Your task to perform on an android device: delete location history Image 0: 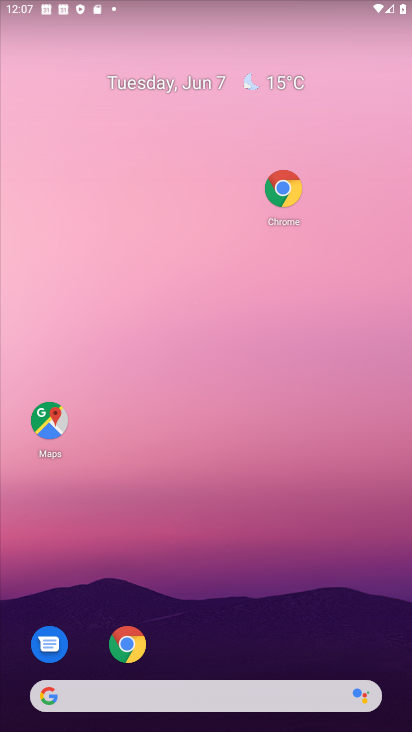
Step 0: drag from (275, 529) to (339, 0)
Your task to perform on an android device: delete location history Image 1: 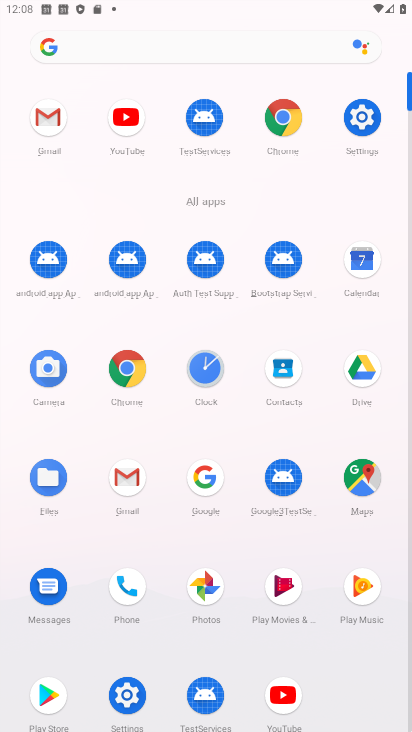
Step 1: click (363, 475)
Your task to perform on an android device: delete location history Image 2: 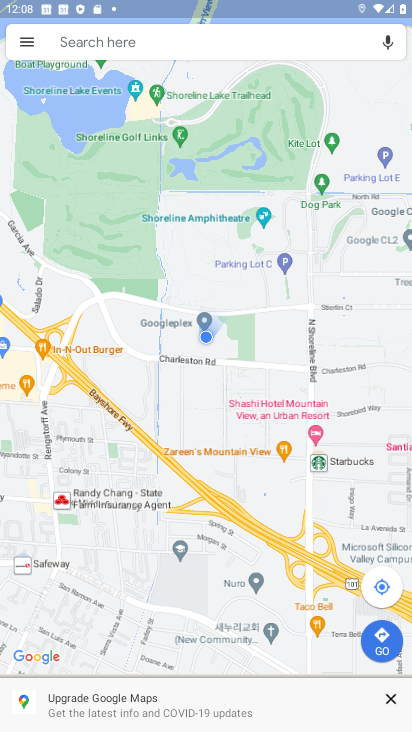
Step 2: click (28, 41)
Your task to perform on an android device: delete location history Image 3: 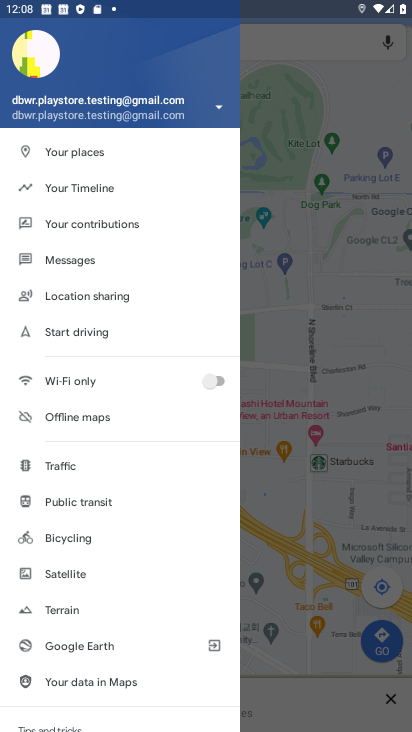
Step 3: drag from (86, 657) to (159, 249)
Your task to perform on an android device: delete location history Image 4: 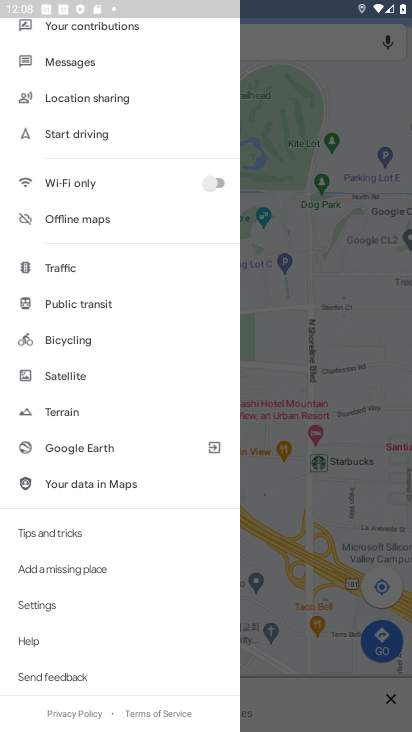
Step 4: click (27, 612)
Your task to perform on an android device: delete location history Image 5: 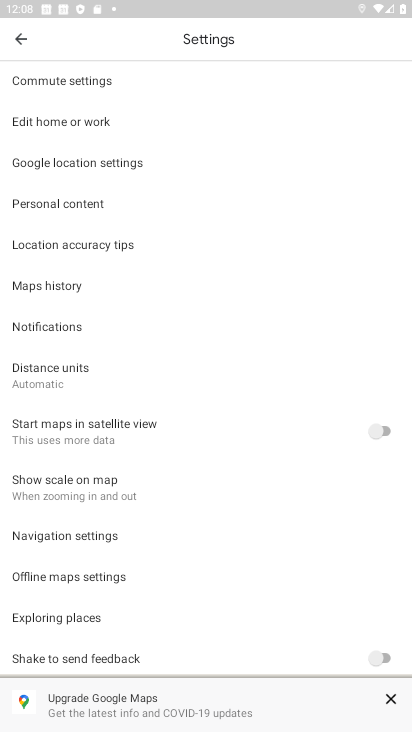
Step 5: click (49, 283)
Your task to perform on an android device: delete location history Image 6: 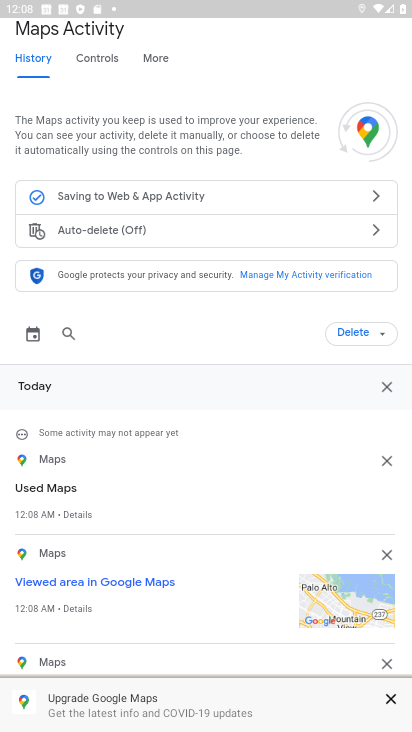
Step 6: click (355, 329)
Your task to perform on an android device: delete location history Image 7: 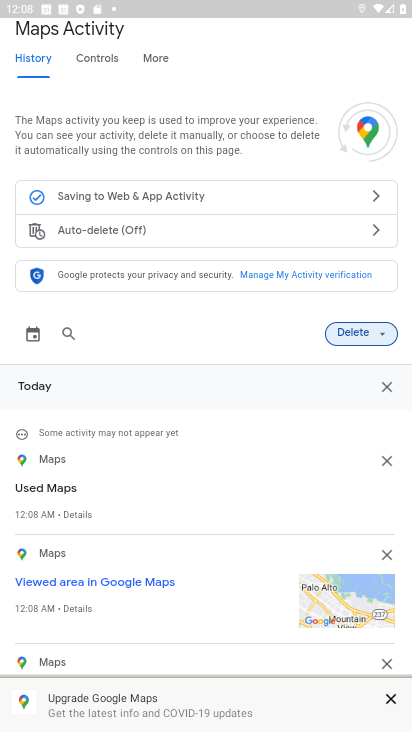
Step 7: click (357, 330)
Your task to perform on an android device: delete location history Image 8: 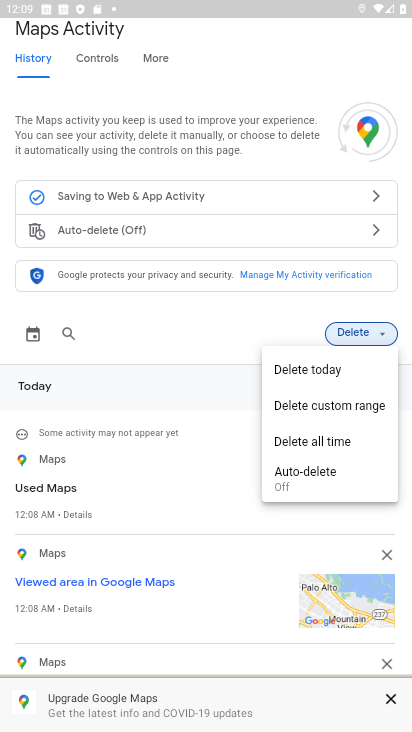
Step 8: click (313, 434)
Your task to perform on an android device: delete location history Image 9: 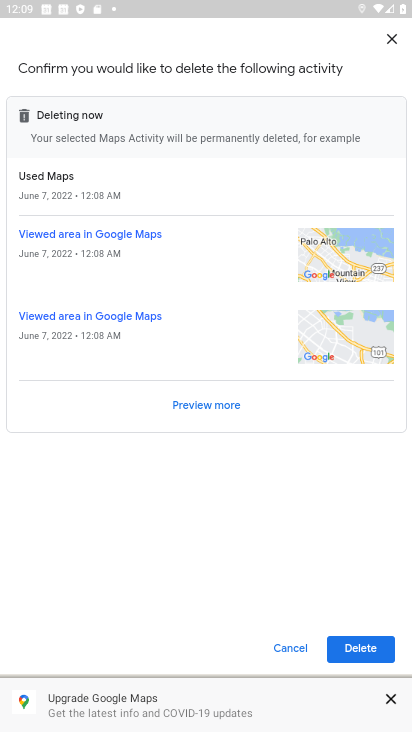
Step 9: click (357, 635)
Your task to perform on an android device: delete location history Image 10: 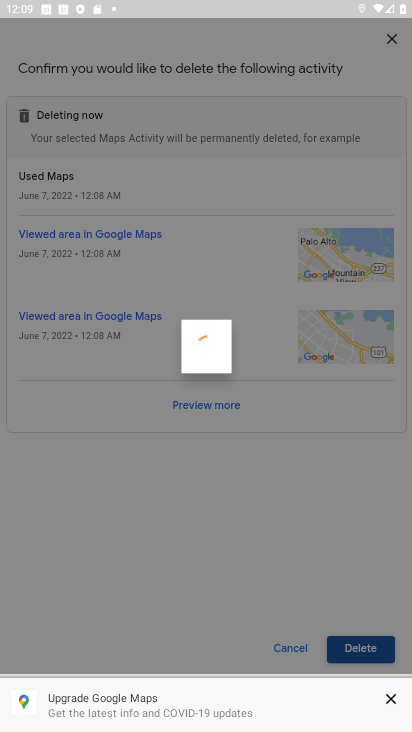
Step 10: click (358, 660)
Your task to perform on an android device: delete location history Image 11: 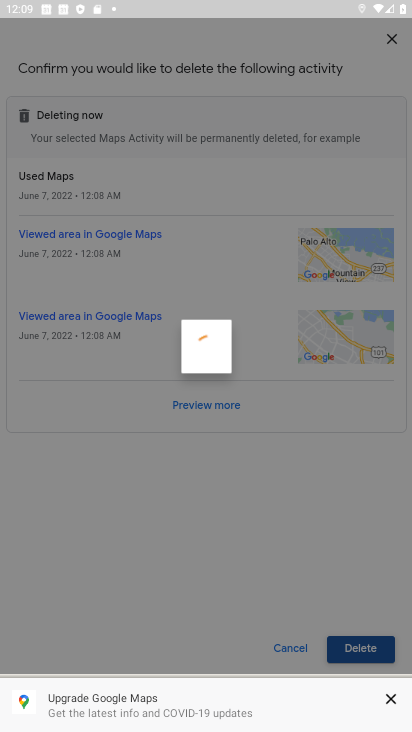
Step 11: click (359, 646)
Your task to perform on an android device: delete location history Image 12: 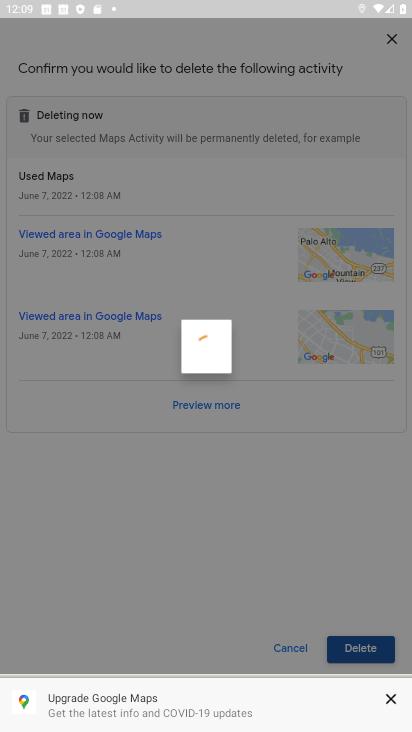
Step 12: click (360, 646)
Your task to perform on an android device: delete location history Image 13: 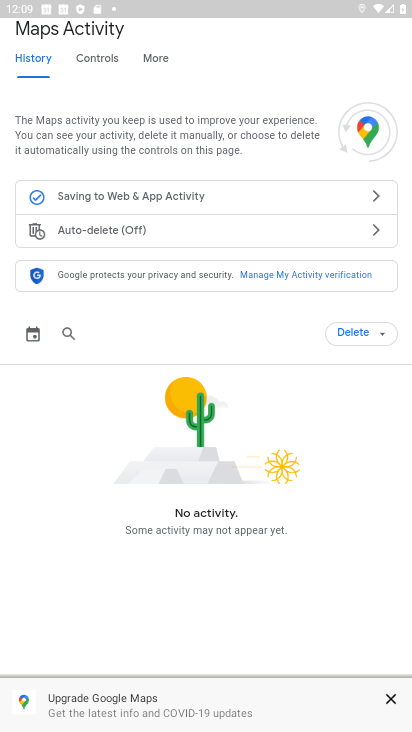
Step 13: task complete